Your task to perform on an android device: change timer sound Image 0: 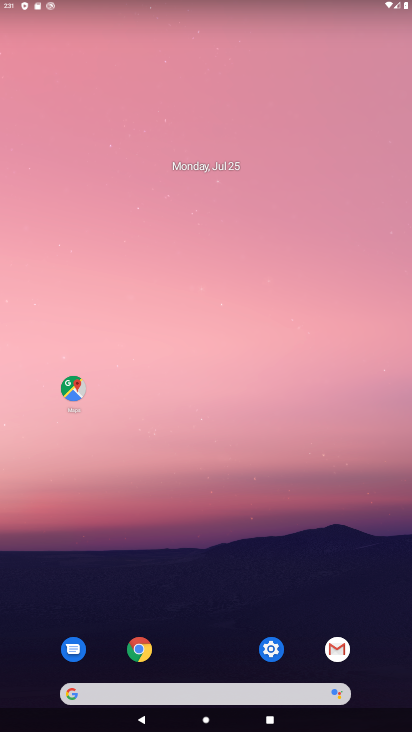
Step 0: drag from (263, 705) to (315, 180)
Your task to perform on an android device: change timer sound Image 1: 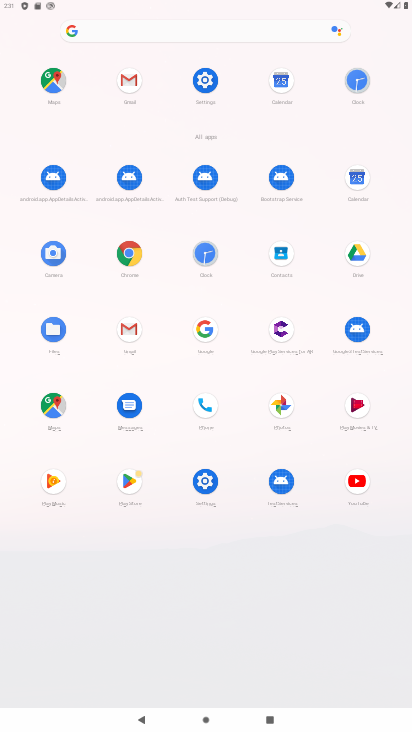
Step 1: click (357, 81)
Your task to perform on an android device: change timer sound Image 2: 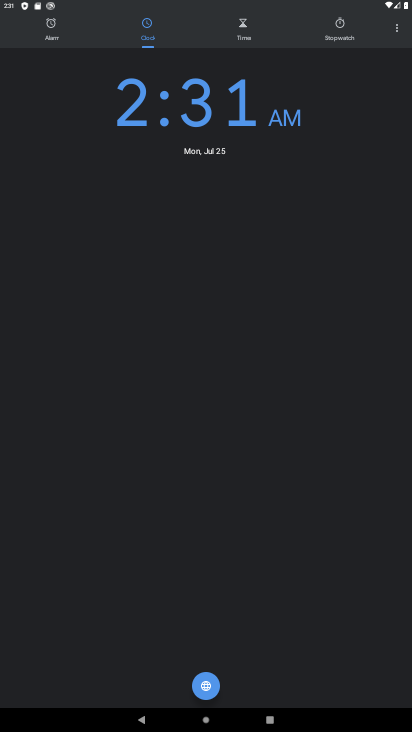
Step 2: click (397, 35)
Your task to perform on an android device: change timer sound Image 3: 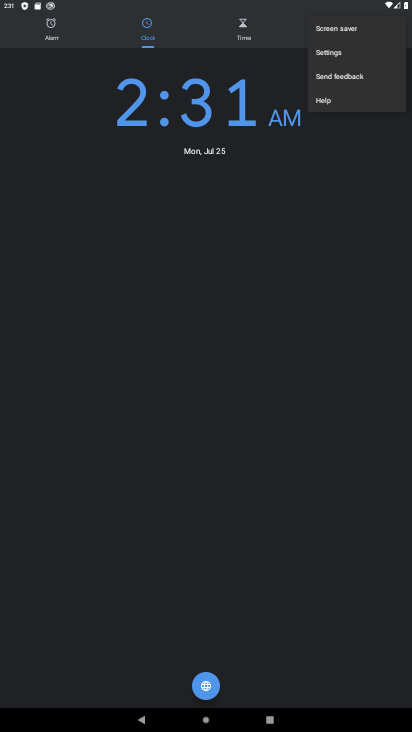
Step 3: click (346, 55)
Your task to perform on an android device: change timer sound Image 4: 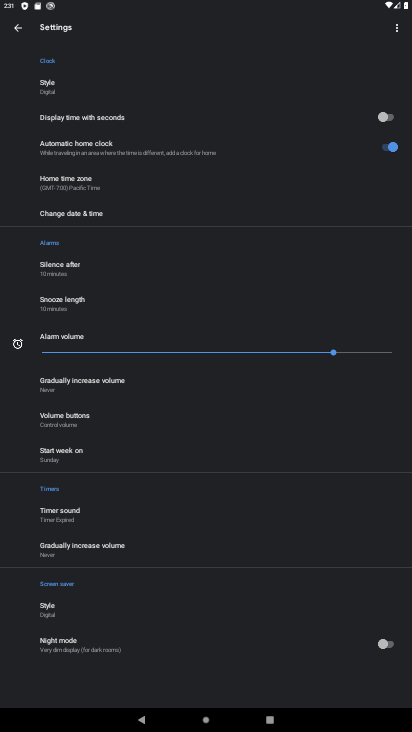
Step 4: click (84, 523)
Your task to perform on an android device: change timer sound Image 5: 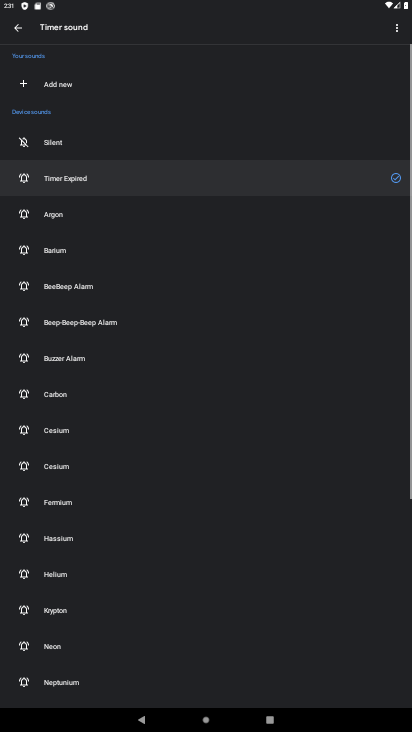
Step 5: click (43, 621)
Your task to perform on an android device: change timer sound Image 6: 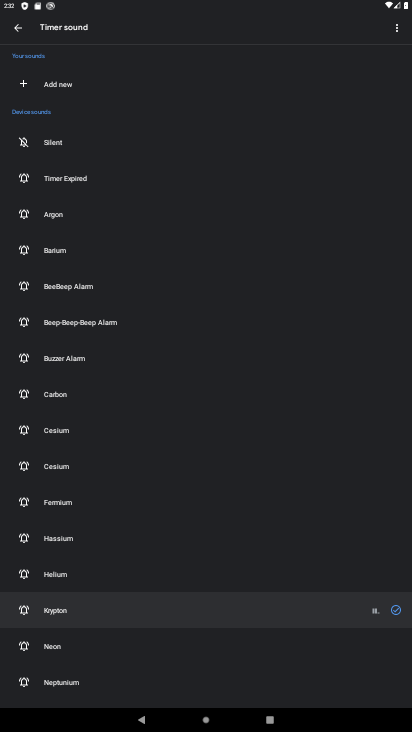
Step 6: click (127, 446)
Your task to perform on an android device: change timer sound Image 7: 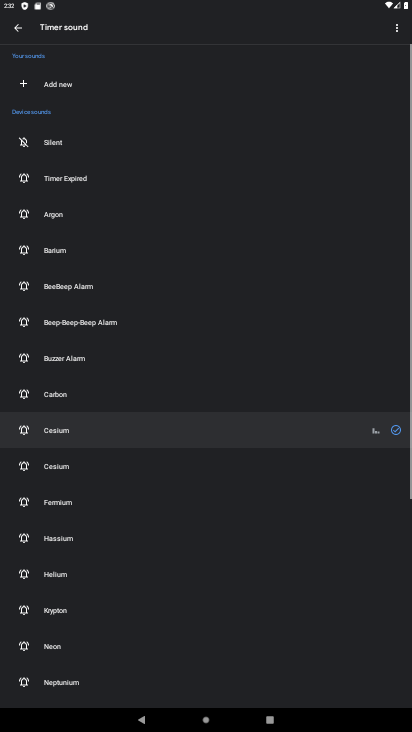
Step 7: task complete